Your task to perform on an android device: toggle data saver in the chrome app Image 0: 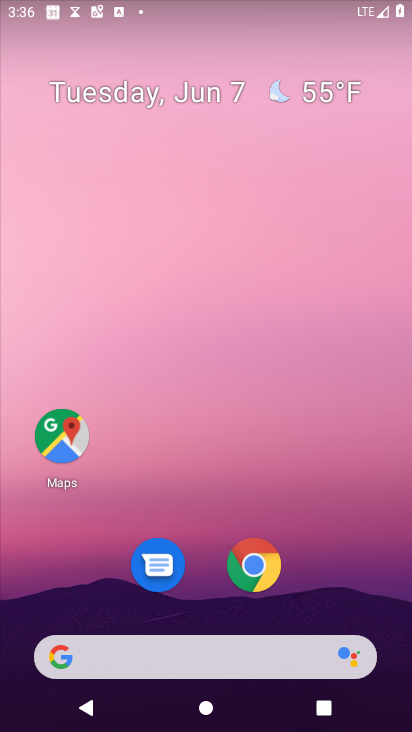
Step 0: drag from (273, 517) to (307, 187)
Your task to perform on an android device: toggle data saver in the chrome app Image 1: 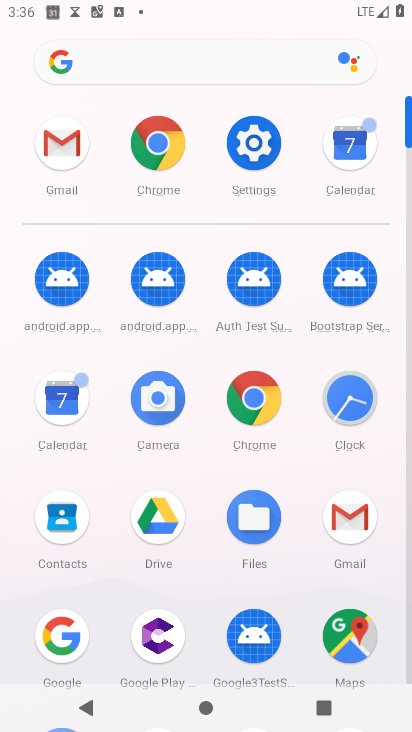
Step 1: click (257, 399)
Your task to perform on an android device: toggle data saver in the chrome app Image 2: 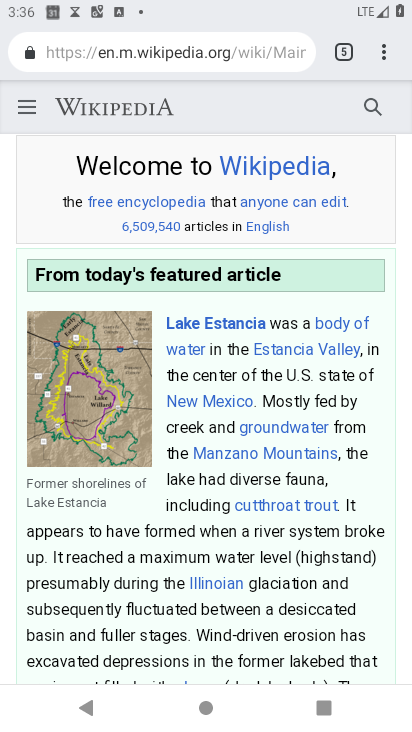
Step 2: drag from (375, 60) to (260, 618)
Your task to perform on an android device: toggle data saver in the chrome app Image 3: 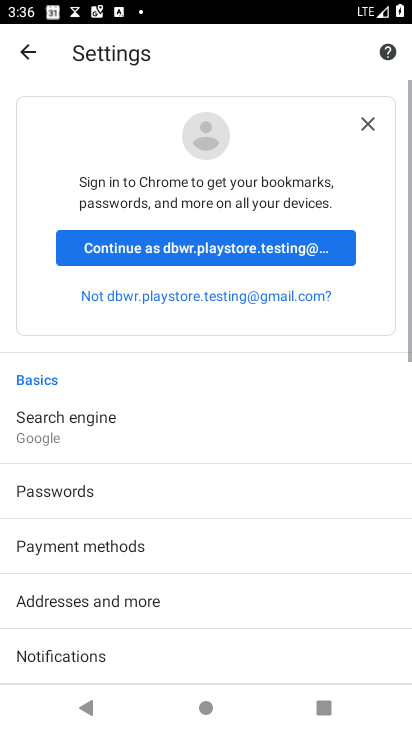
Step 3: drag from (260, 628) to (265, 98)
Your task to perform on an android device: toggle data saver in the chrome app Image 4: 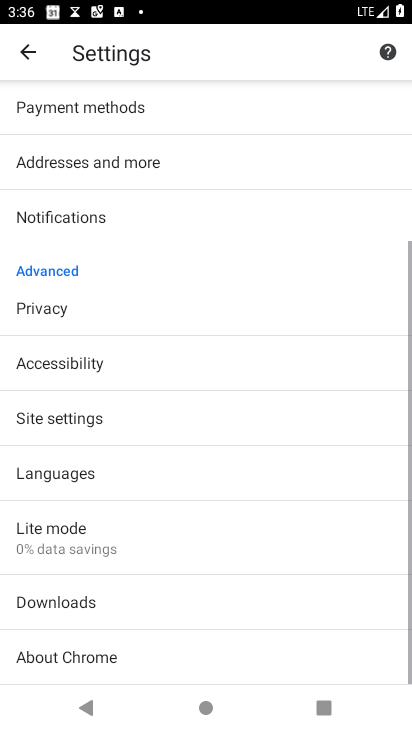
Step 4: click (129, 419)
Your task to perform on an android device: toggle data saver in the chrome app Image 5: 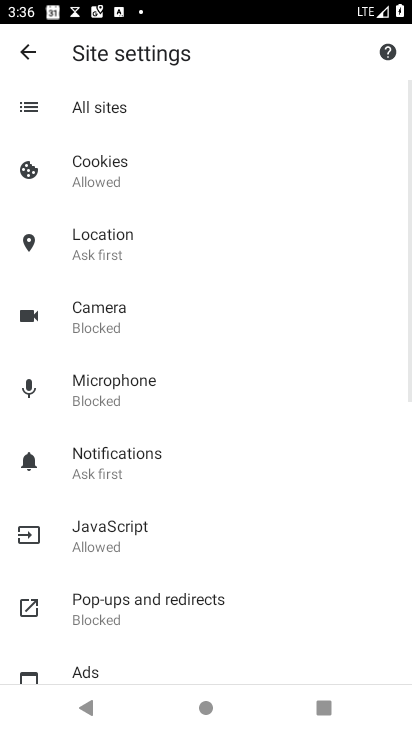
Step 5: press back button
Your task to perform on an android device: toggle data saver in the chrome app Image 6: 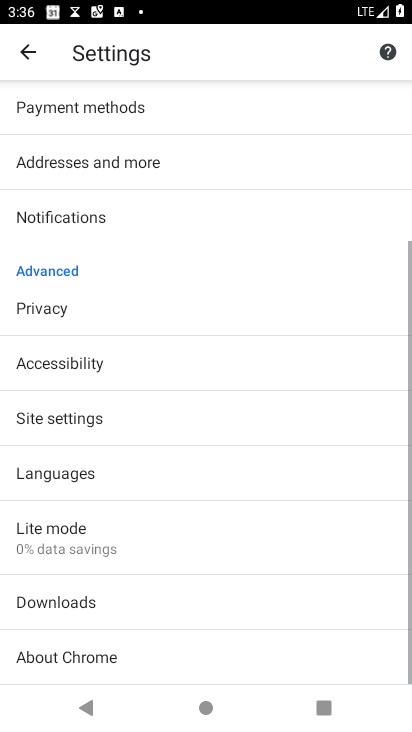
Step 6: click (173, 531)
Your task to perform on an android device: toggle data saver in the chrome app Image 7: 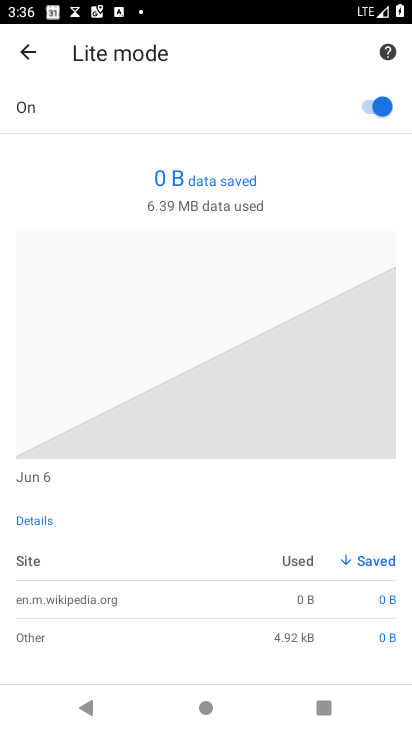
Step 7: click (367, 113)
Your task to perform on an android device: toggle data saver in the chrome app Image 8: 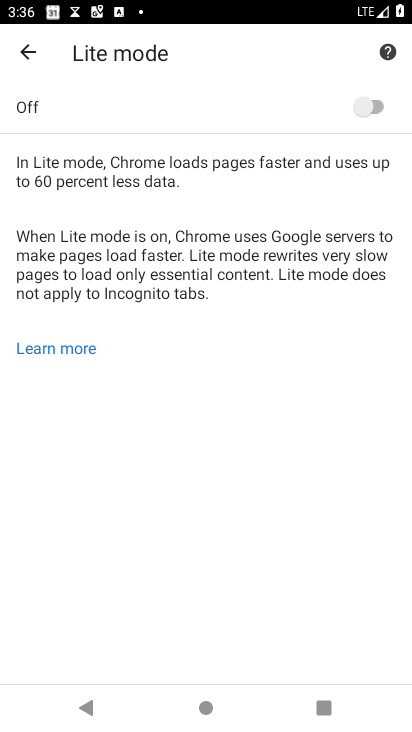
Step 8: task complete